Your task to perform on an android device: Open Youtube and go to the subscriptions tab Image 0: 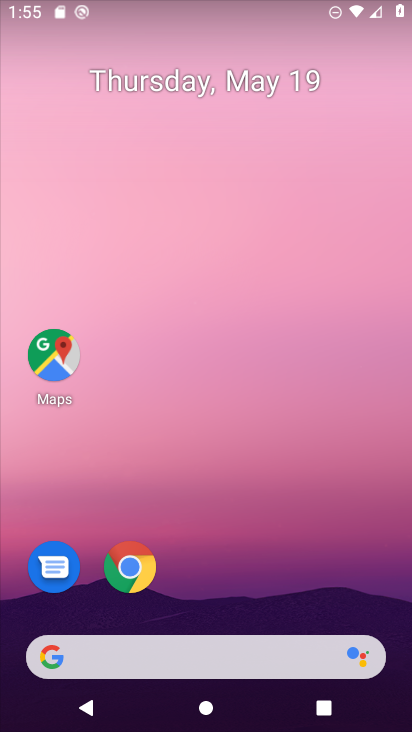
Step 0: drag from (262, 544) to (217, 17)
Your task to perform on an android device: Open Youtube and go to the subscriptions tab Image 1: 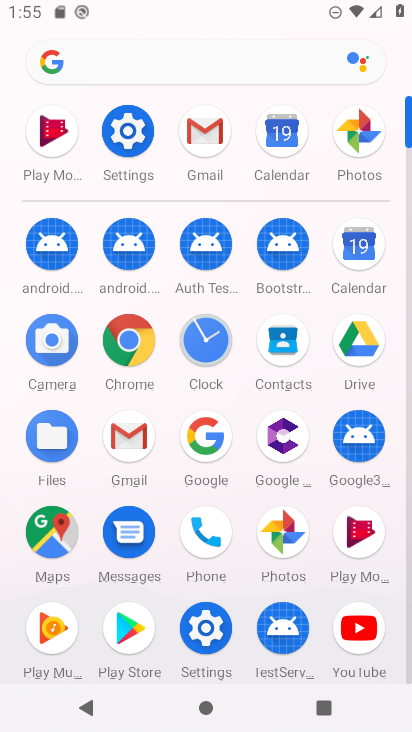
Step 1: click (357, 624)
Your task to perform on an android device: Open Youtube and go to the subscriptions tab Image 2: 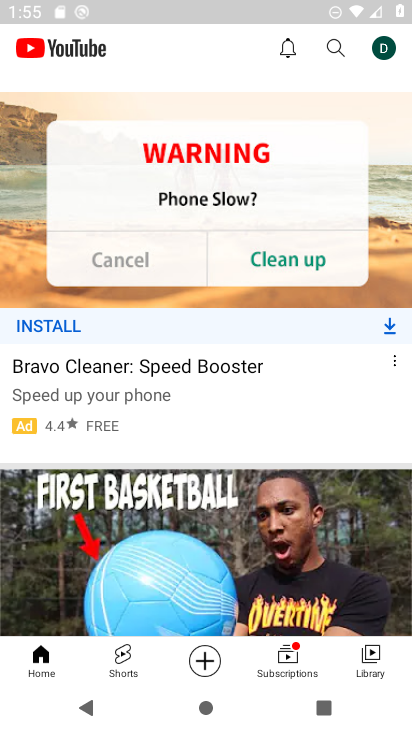
Step 2: click (307, 660)
Your task to perform on an android device: Open Youtube and go to the subscriptions tab Image 3: 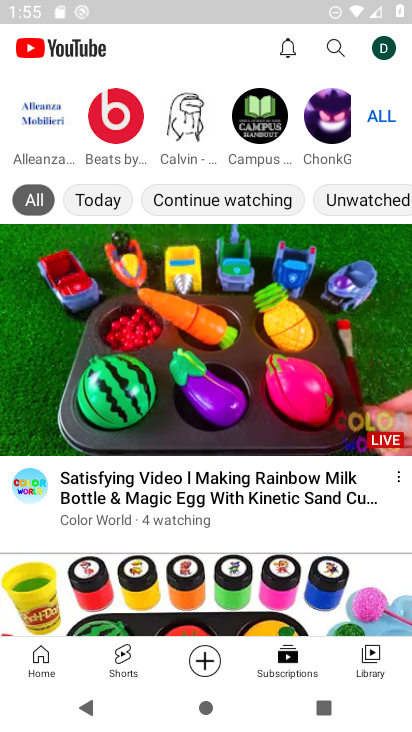
Step 3: task complete